Your task to perform on an android device: turn on improve location accuracy Image 0: 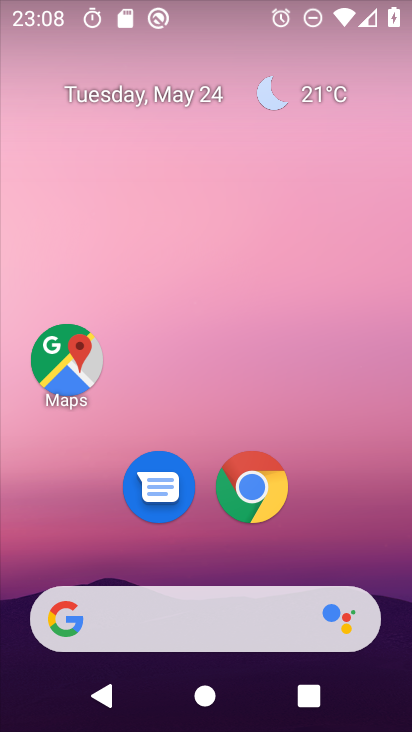
Step 0: drag from (383, 595) to (394, 1)
Your task to perform on an android device: turn on improve location accuracy Image 1: 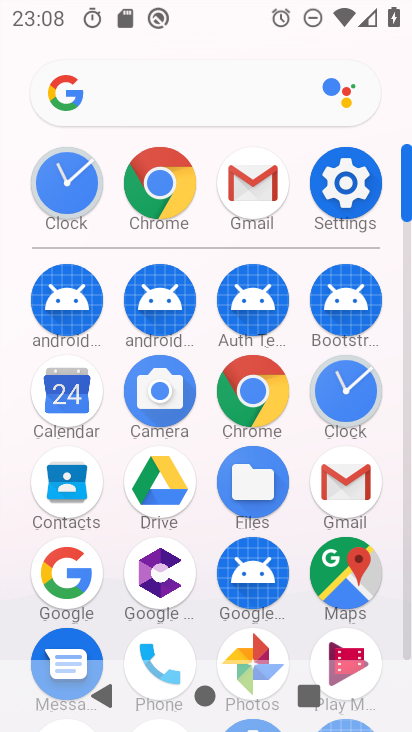
Step 1: click (352, 184)
Your task to perform on an android device: turn on improve location accuracy Image 2: 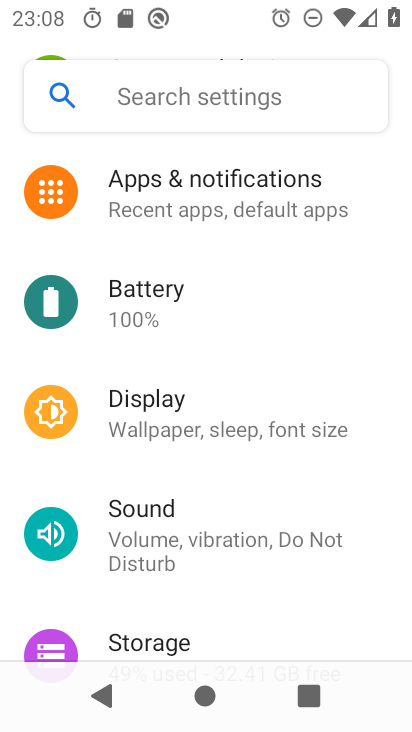
Step 2: drag from (270, 477) to (288, 155)
Your task to perform on an android device: turn on improve location accuracy Image 3: 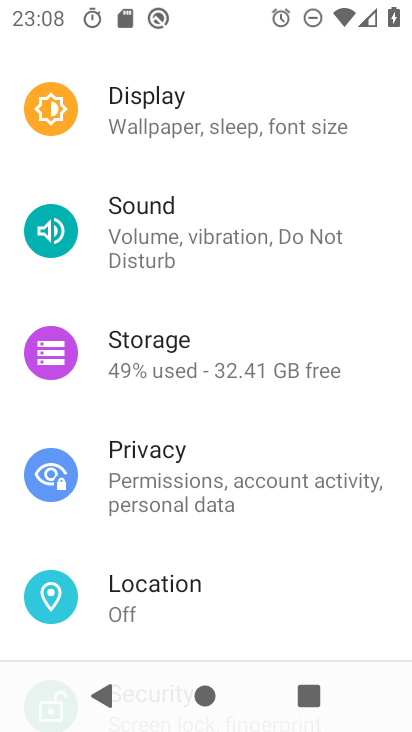
Step 3: click (142, 596)
Your task to perform on an android device: turn on improve location accuracy Image 4: 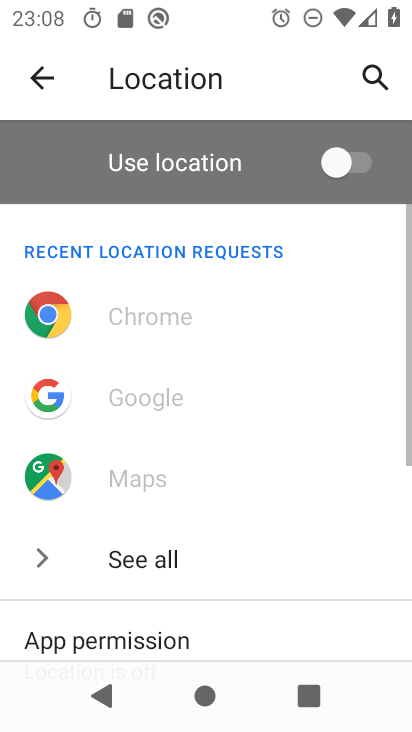
Step 4: drag from (203, 580) to (218, 201)
Your task to perform on an android device: turn on improve location accuracy Image 5: 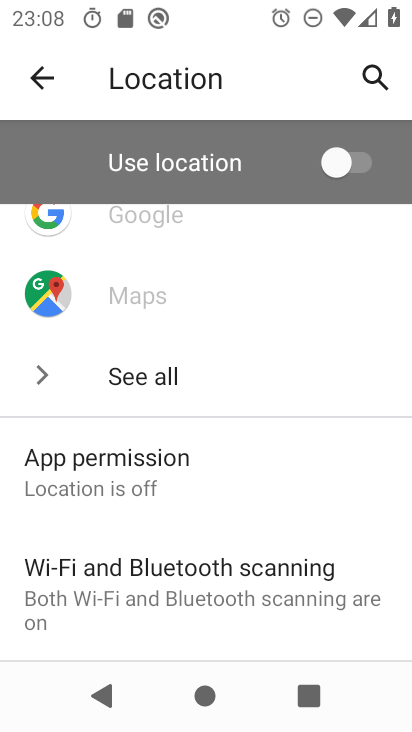
Step 5: drag from (190, 524) to (220, 175)
Your task to perform on an android device: turn on improve location accuracy Image 6: 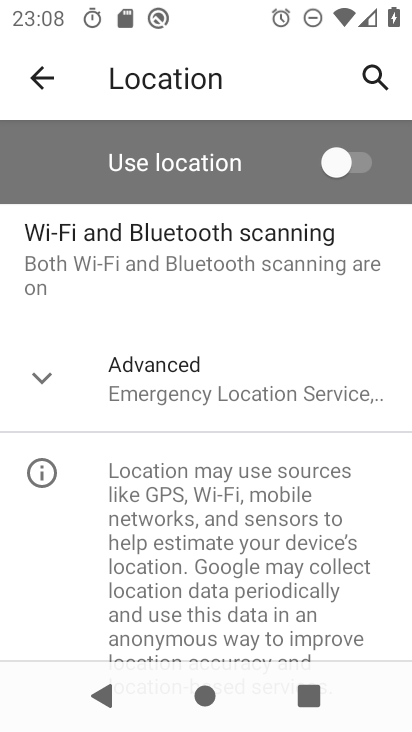
Step 6: click (44, 382)
Your task to perform on an android device: turn on improve location accuracy Image 7: 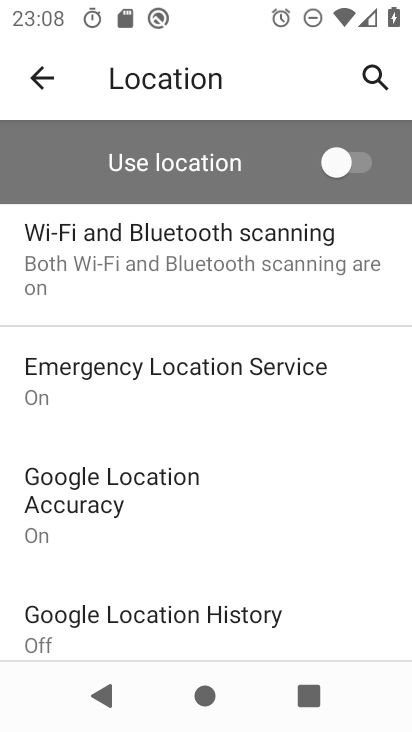
Step 7: drag from (178, 522) to (189, 142)
Your task to perform on an android device: turn on improve location accuracy Image 8: 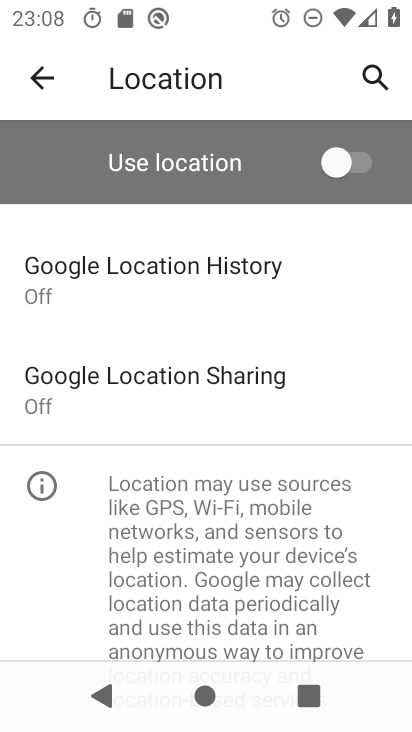
Step 8: drag from (135, 274) to (124, 467)
Your task to perform on an android device: turn on improve location accuracy Image 9: 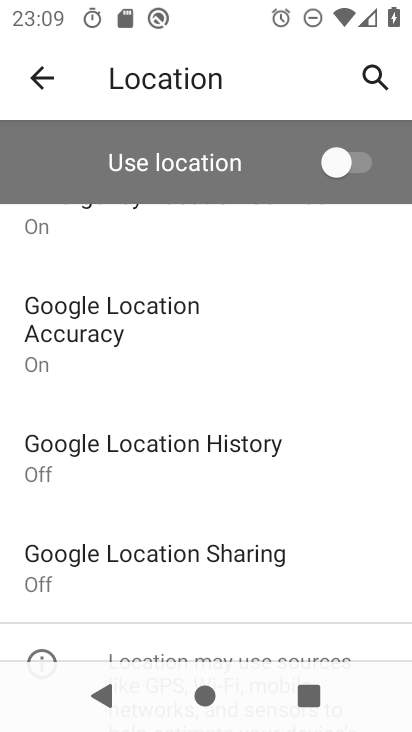
Step 9: click (79, 335)
Your task to perform on an android device: turn on improve location accuracy Image 10: 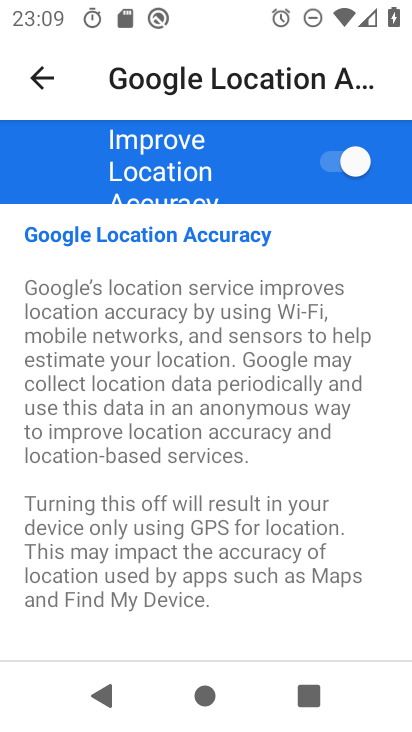
Step 10: task complete